Your task to perform on an android device: Set an alarm for 2pm Image 0: 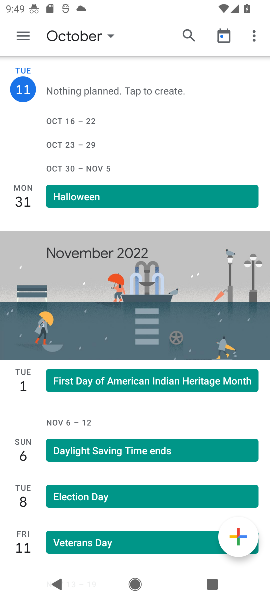
Step 0: press home button
Your task to perform on an android device: Set an alarm for 2pm Image 1: 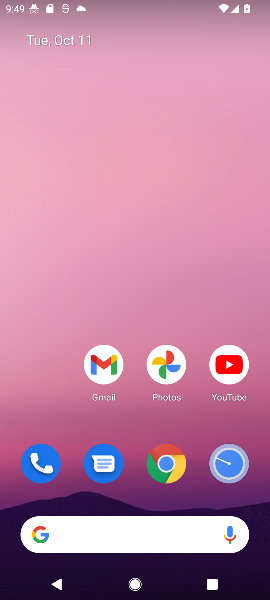
Step 1: press home button
Your task to perform on an android device: Set an alarm for 2pm Image 2: 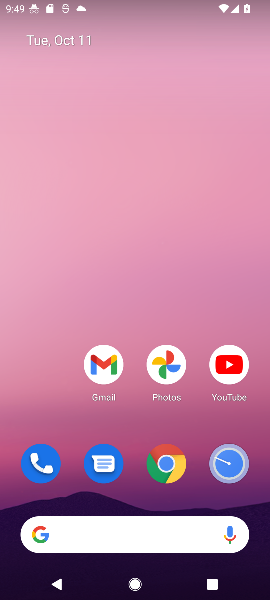
Step 2: drag from (112, 508) to (120, 132)
Your task to perform on an android device: Set an alarm for 2pm Image 3: 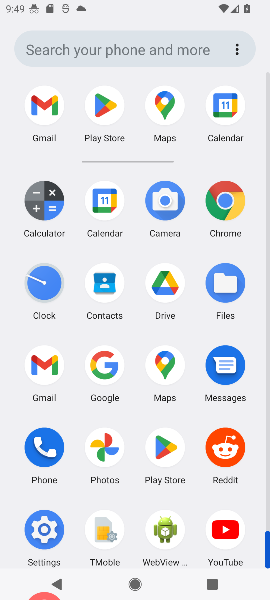
Step 3: click (45, 283)
Your task to perform on an android device: Set an alarm for 2pm Image 4: 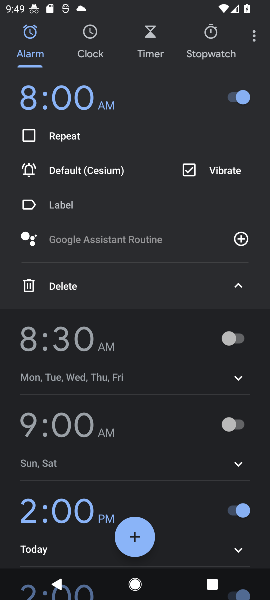
Step 4: click (243, 282)
Your task to perform on an android device: Set an alarm for 2pm Image 5: 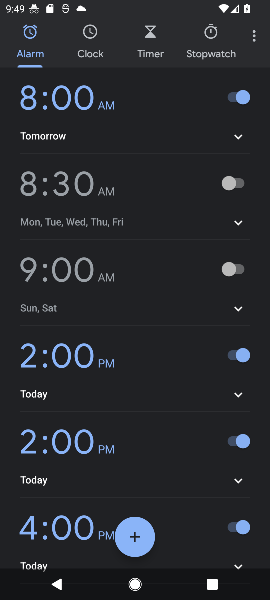
Step 5: click (138, 539)
Your task to perform on an android device: Set an alarm for 2pm Image 6: 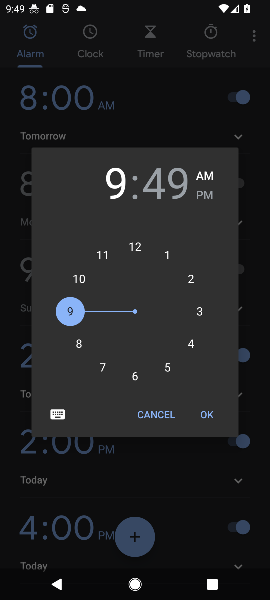
Step 6: click (84, 354)
Your task to perform on an android device: Set an alarm for 2pm Image 7: 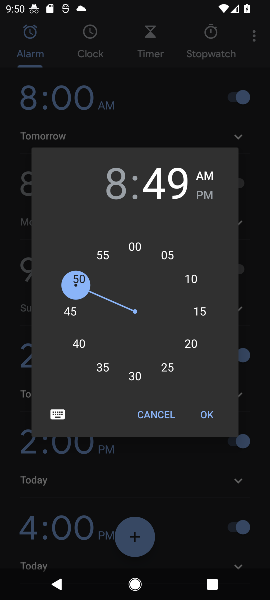
Step 7: click (134, 248)
Your task to perform on an android device: Set an alarm for 2pm Image 8: 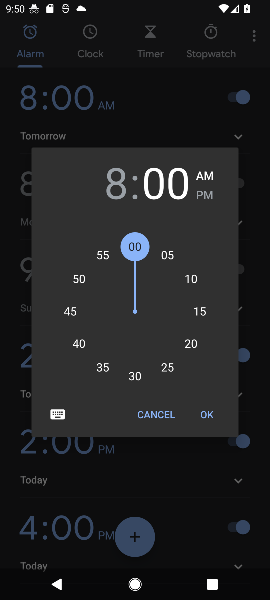
Step 8: click (108, 172)
Your task to perform on an android device: Set an alarm for 2pm Image 9: 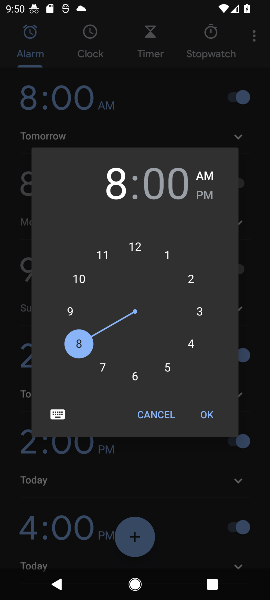
Step 9: click (192, 283)
Your task to perform on an android device: Set an alarm for 2pm Image 10: 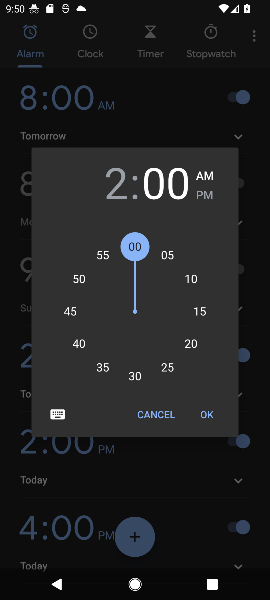
Step 10: click (201, 411)
Your task to perform on an android device: Set an alarm for 2pm Image 11: 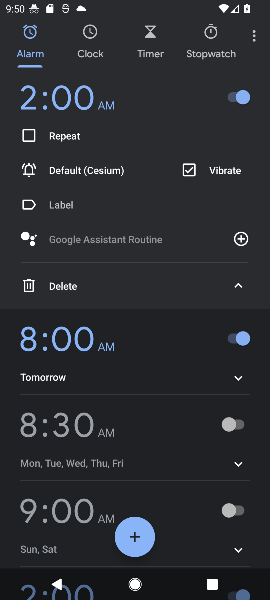
Step 11: click (230, 287)
Your task to perform on an android device: Set an alarm for 2pm Image 12: 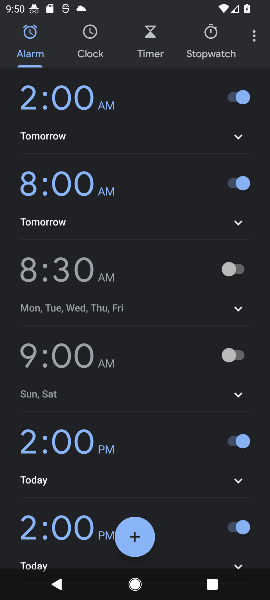
Step 12: task complete